Your task to perform on an android device: Go to network settings Image 0: 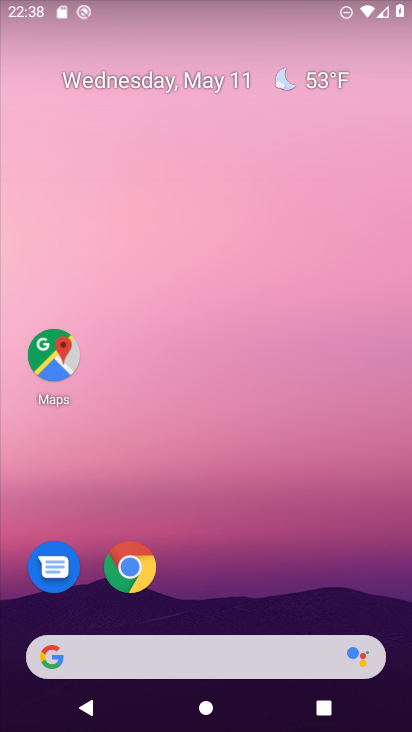
Step 0: drag from (250, 715) to (284, 79)
Your task to perform on an android device: Go to network settings Image 1: 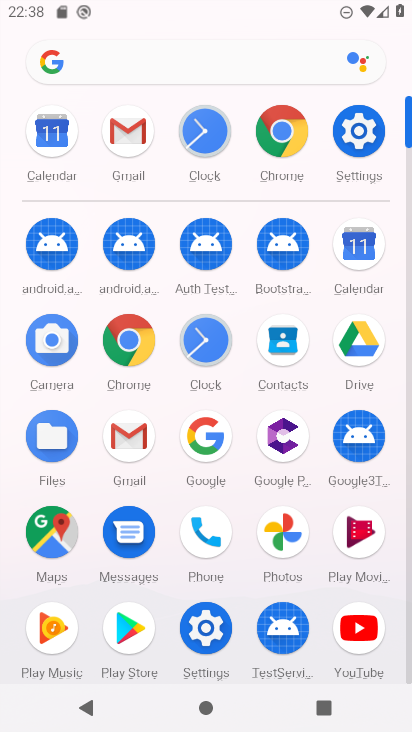
Step 1: click (357, 141)
Your task to perform on an android device: Go to network settings Image 2: 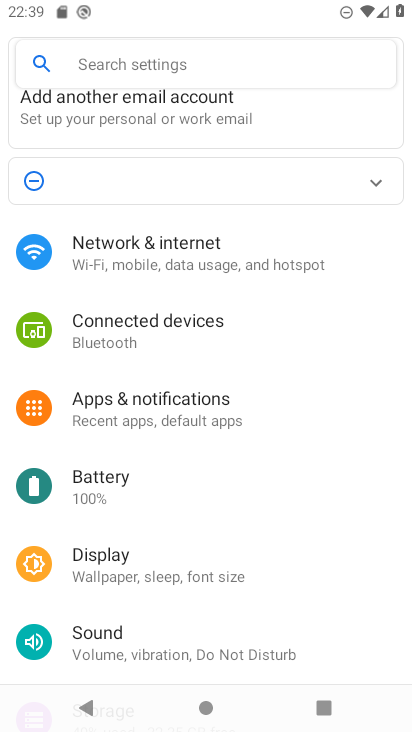
Step 2: click (183, 261)
Your task to perform on an android device: Go to network settings Image 3: 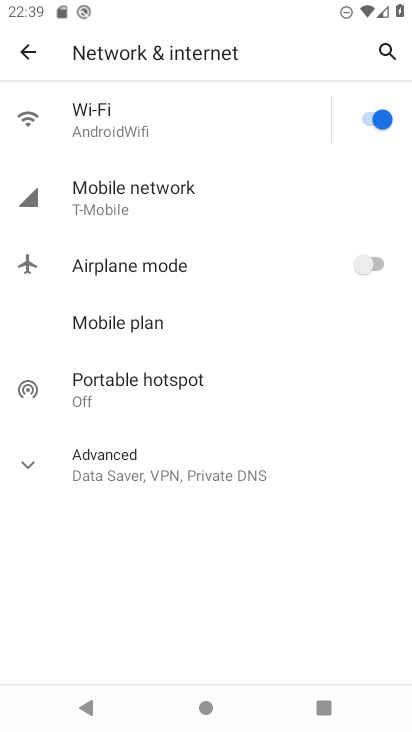
Step 3: task complete